Your task to perform on an android device: choose inbox layout in the gmail app Image 0: 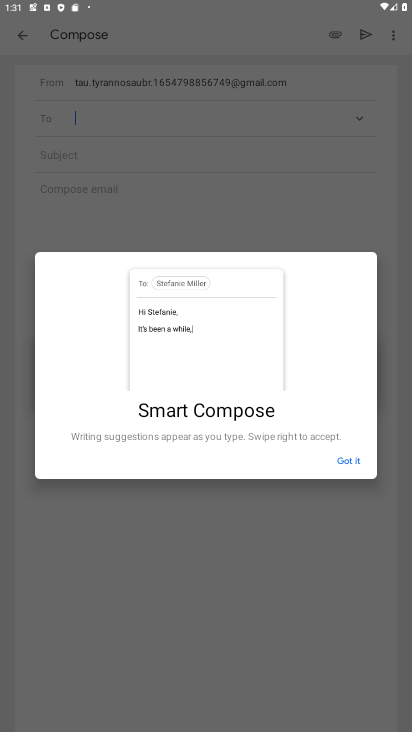
Step 0: press home button
Your task to perform on an android device: choose inbox layout in the gmail app Image 1: 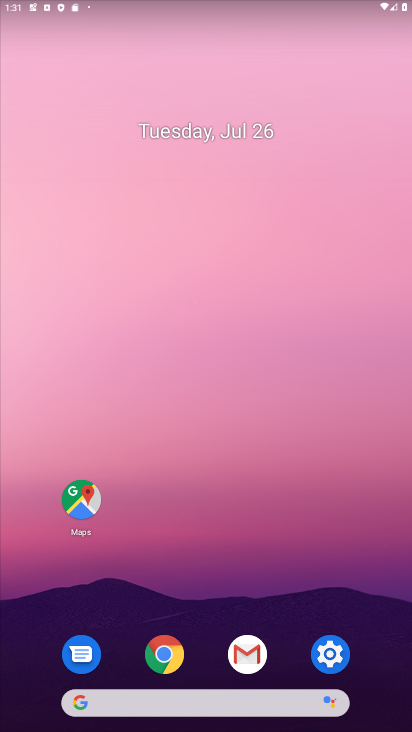
Step 1: click (254, 657)
Your task to perform on an android device: choose inbox layout in the gmail app Image 2: 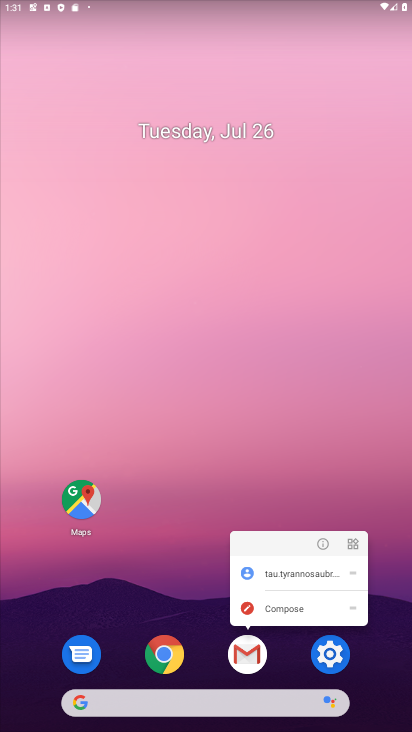
Step 2: click (254, 657)
Your task to perform on an android device: choose inbox layout in the gmail app Image 3: 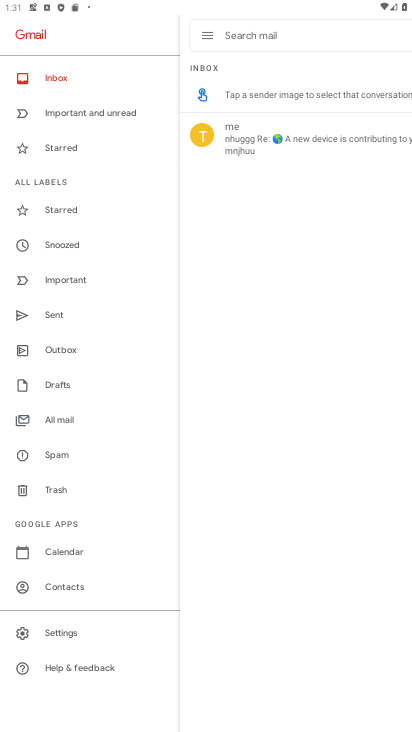
Step 3: click (67, 632)
Your task to perform on an android device: choose inbox layout in the gmail app Image 4: 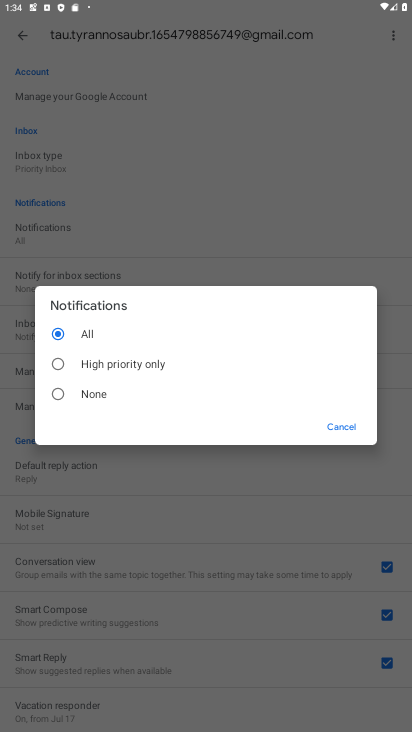
Step 4: task complete